Your task to perform on an android device: open device folders in google photos Image 0: 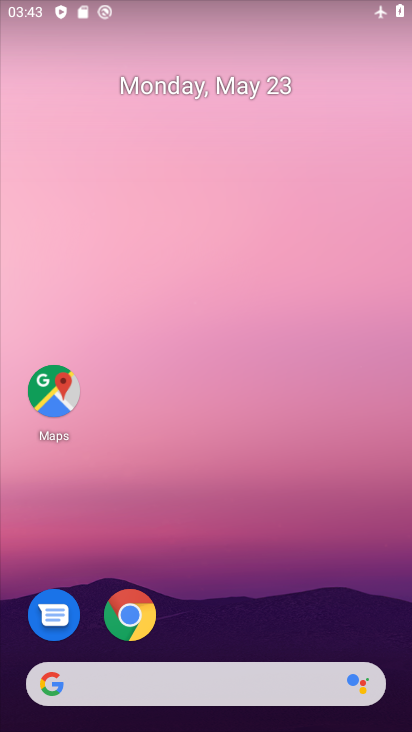
Step 0: drag from (247, 531) to (273, 285)
Your task to perform on an android device: open device folders in google photos Image 1: 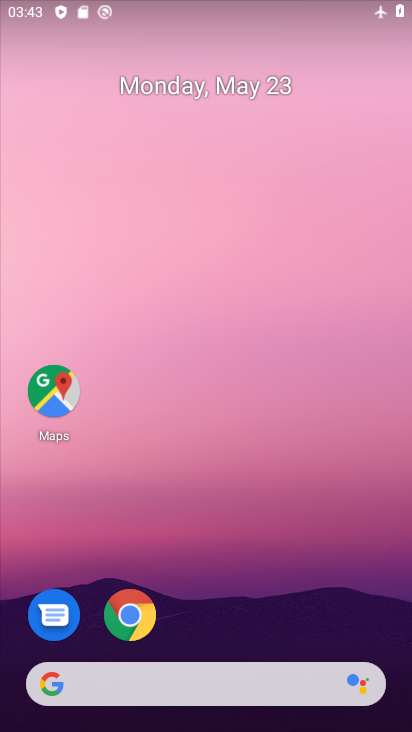
Step 1: drag from (286, 562) to (283, 191)
Your task to perform on an android device: open device folders in google photos Image 2: 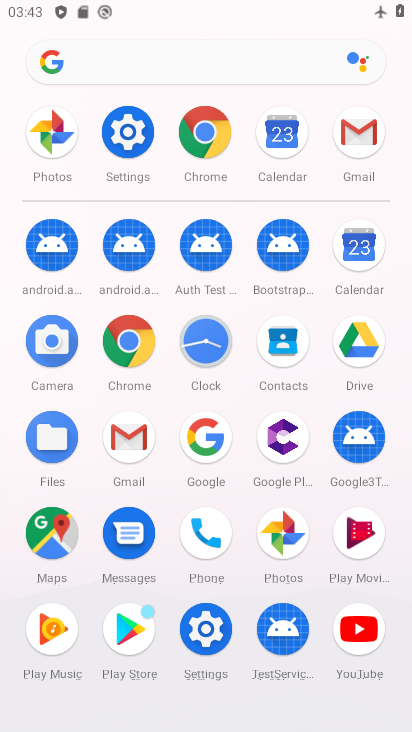
Step 2: click (278, 525)
Your task to perform on an android device: open device folders in google photos Image 3: 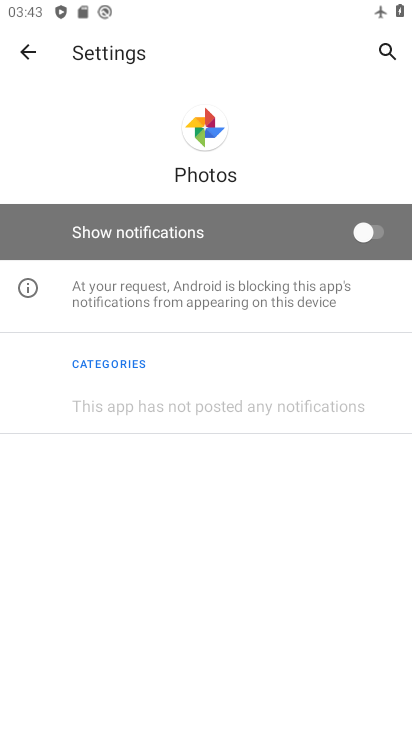
Step 3: click (32, 57)
Your task to perform on an android device: open device folders in google photos Image 4: 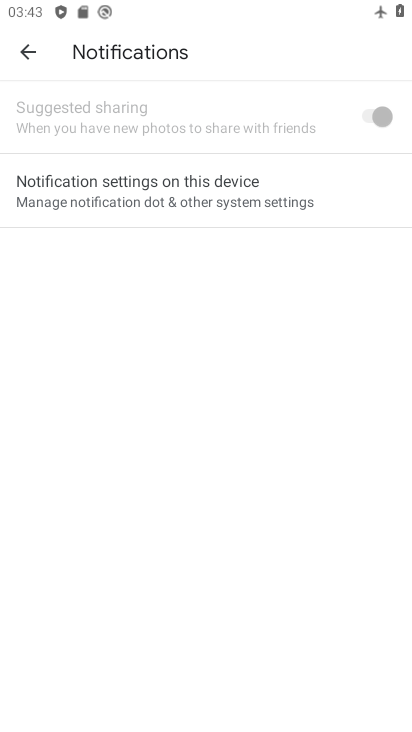
Step 4: click (32, 57)
Your task to perform on an android device: open device folders in google photos Image 5: 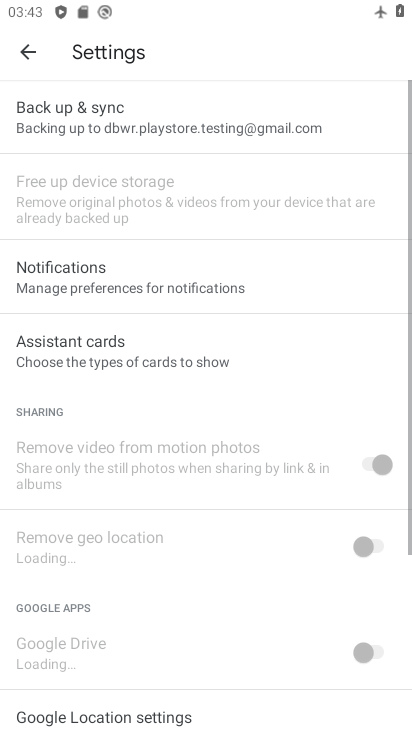
Step 5: click (31, 51)
Your task to perform on an android device: open device folders in google photos Image 6: 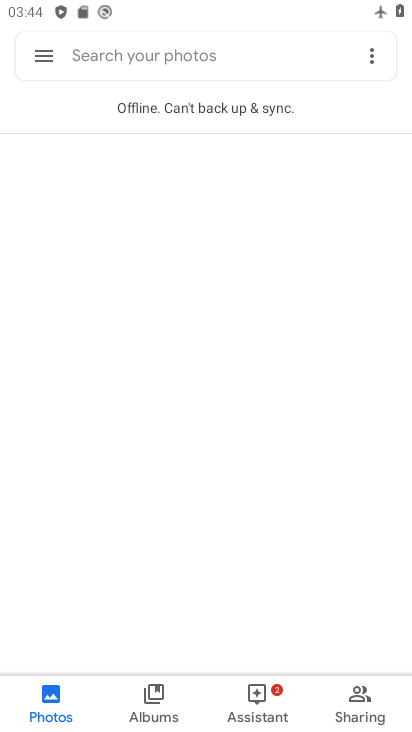
Step 6: click (141, 705)
Your task to perform on an android device: open device folders in google photos Image 7: 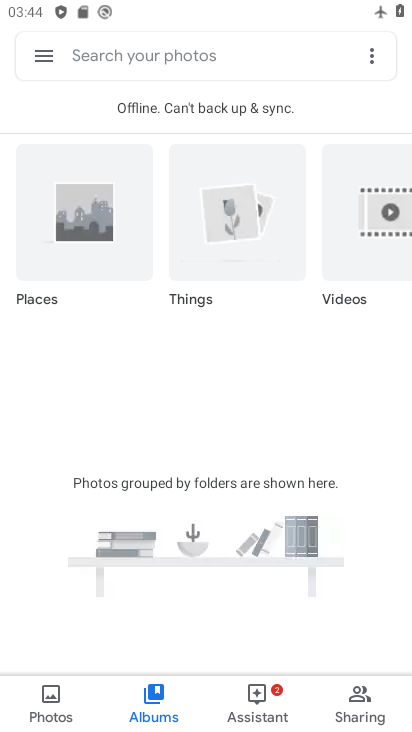
Step 7: click (53, 696)
Your task to perform on an android device: open device folders in google photos Image 8: 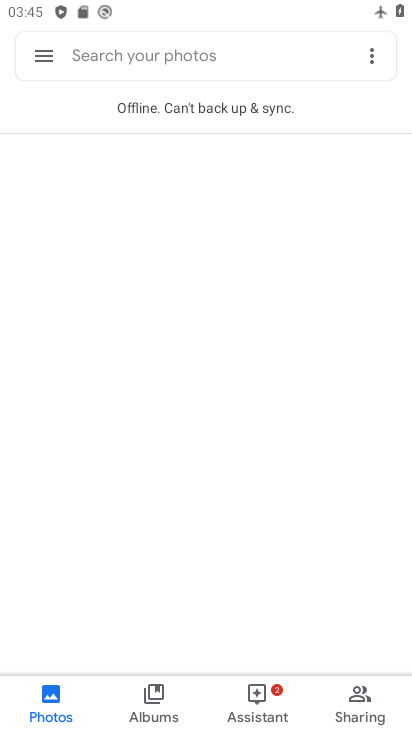
Step 8: task complete